Your task to perform on an android device: open app "The Home Depot" Image 0: 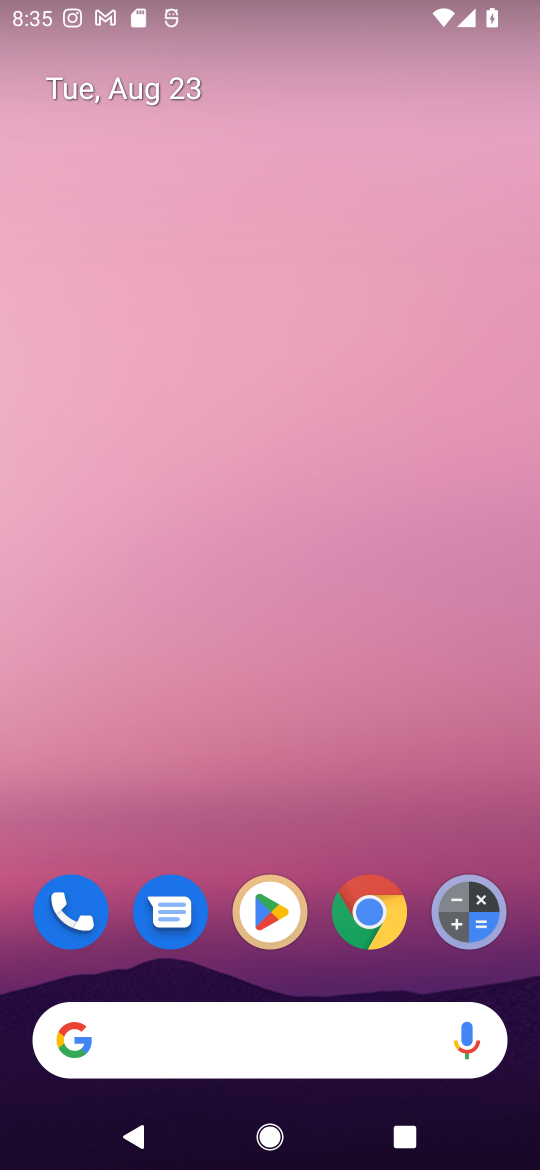
Step 0: click (268, 919)
Your task to perform on an android device: open app "The Home Depot" Image 1: 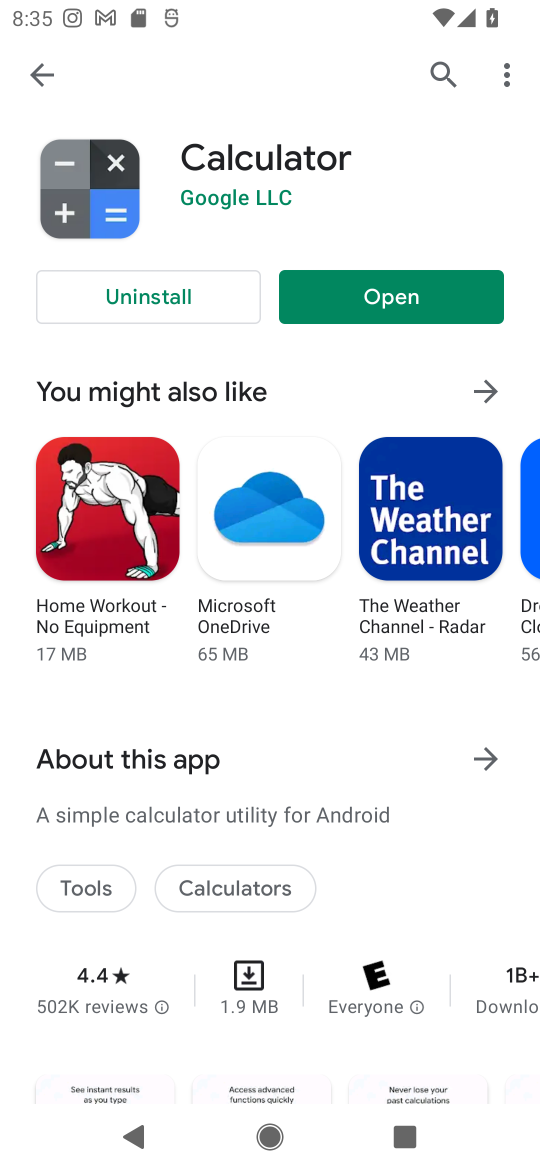
Step 1: click (436, 69)
Your task to perform on an android device: open app "The Home Depot" Image 2: 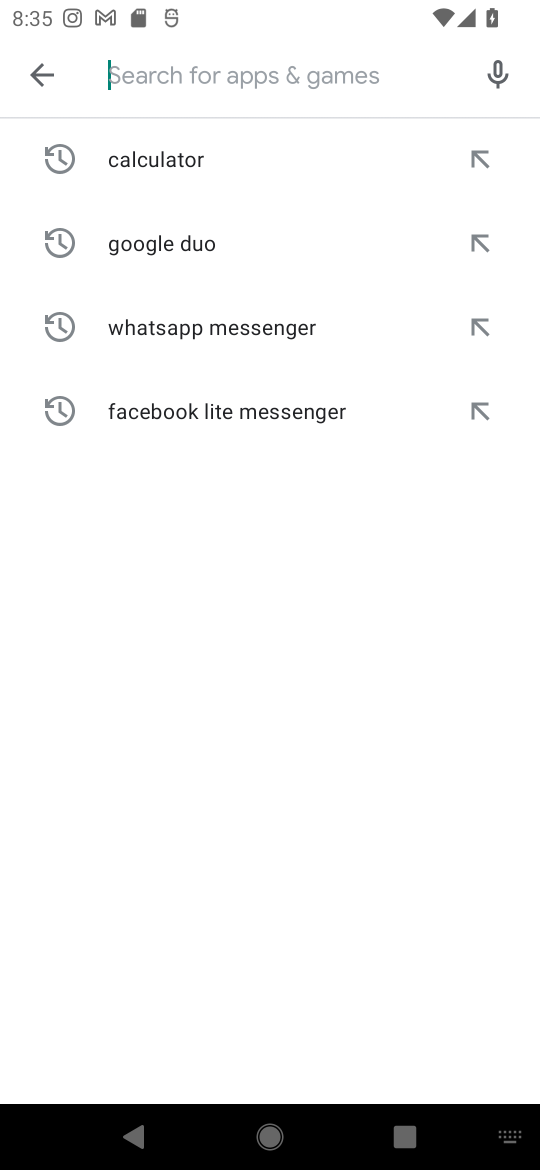
Step 2: type "The Home Depot"
Your task to perform on an android device: open app "The Home Depot" Image 3: 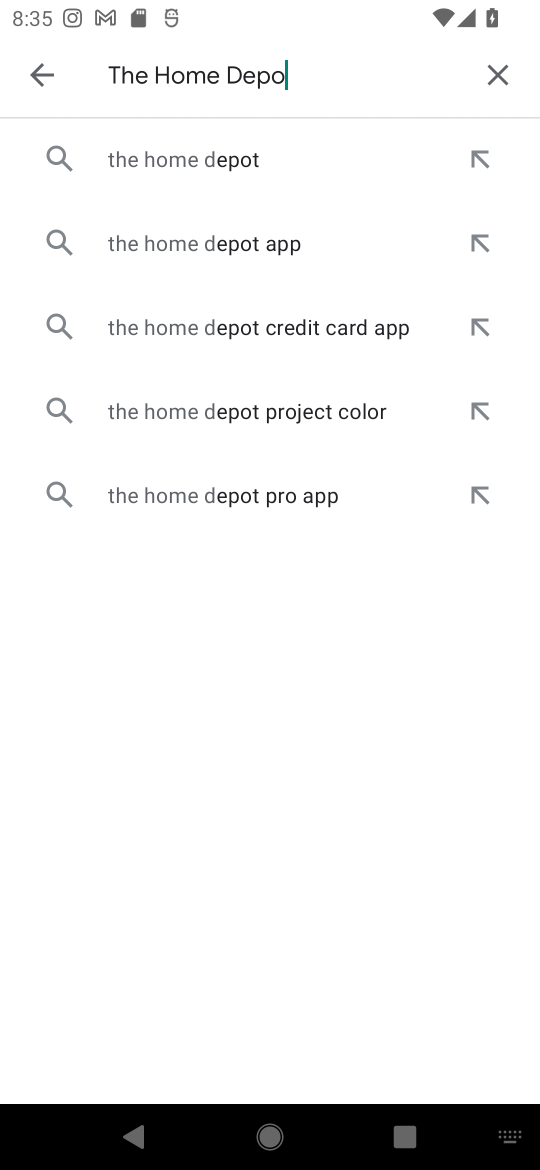
Step 3: type ""
Your task to perform on an android device: open app "The Home Depot" Image 4: 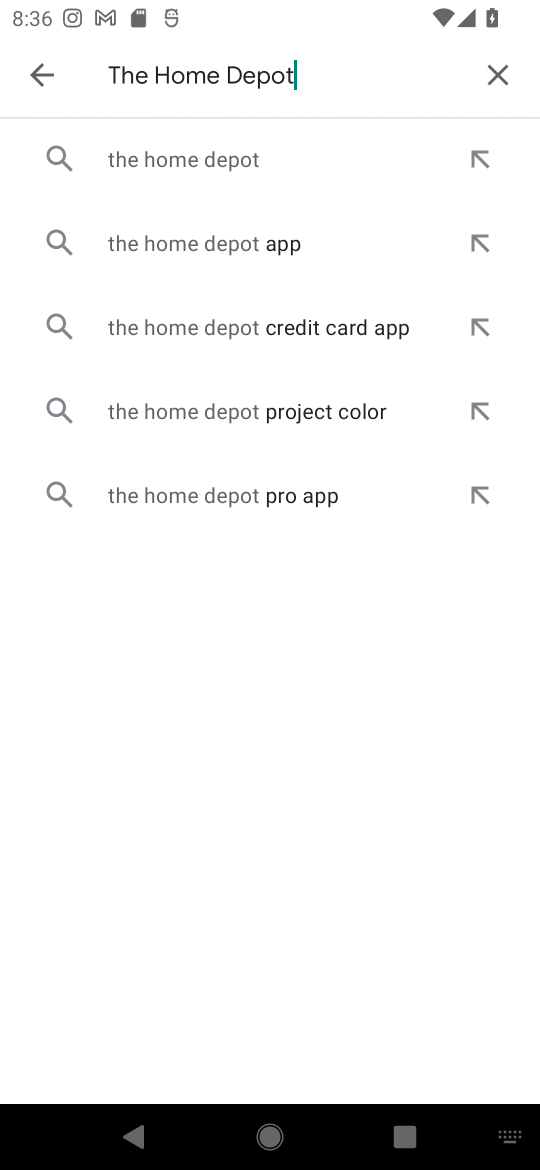
Step 4: click (173, 156)
Your task to perform on an android device: open app "The Home Depot" Image 5: 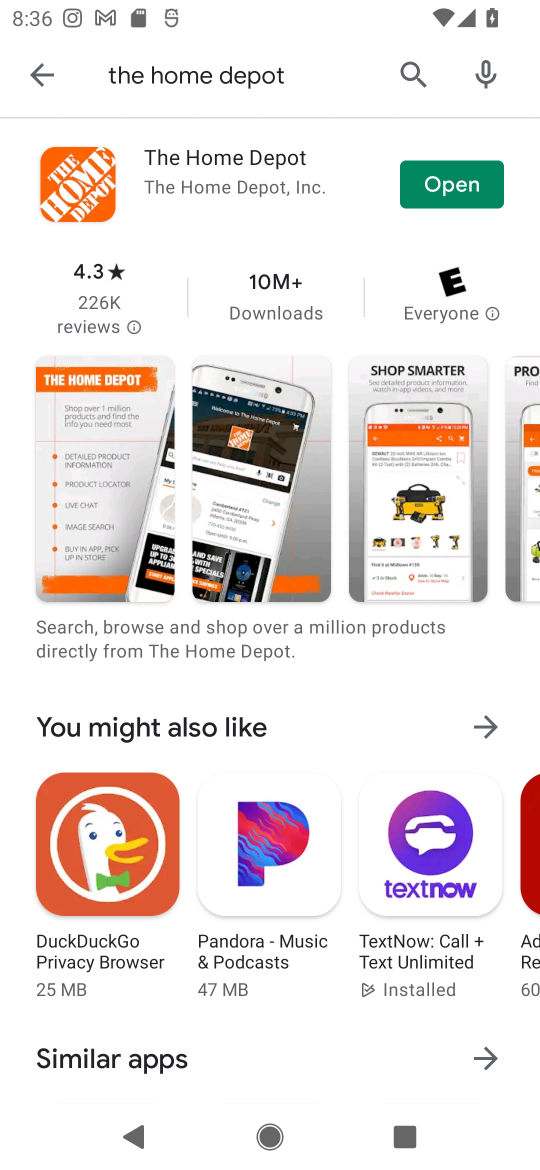
Step 5: click (447, 198)
Your task to perform on an android device: open app "The Home Depot" Image 6: 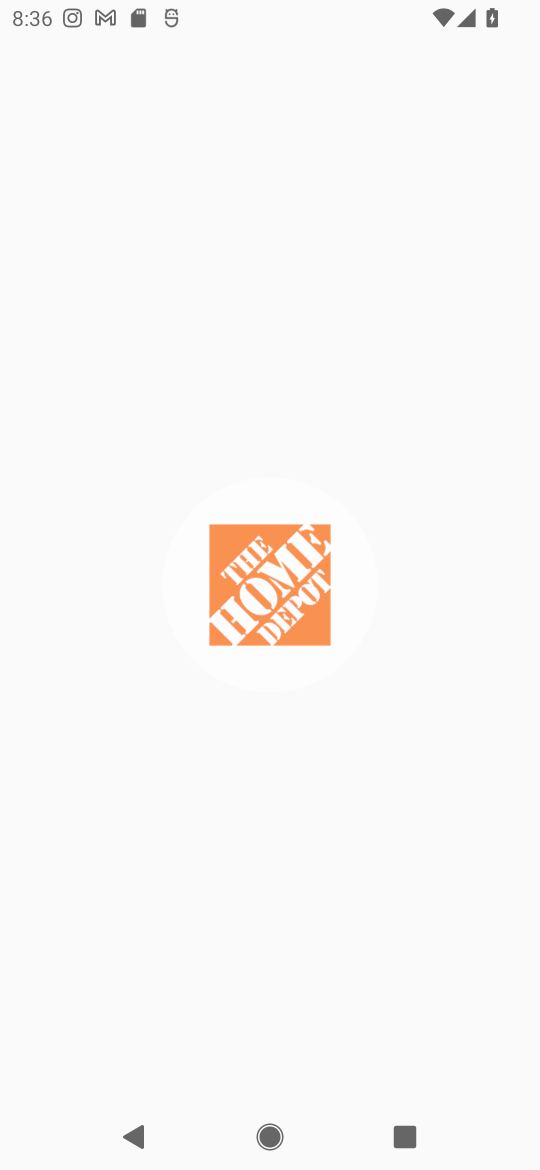
Step 6: task complete